Your task to perform on an android device: Go to settings Image 0: 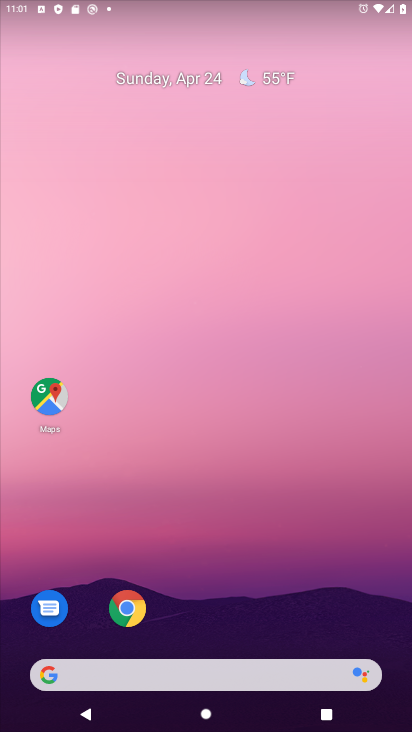
Step 0: drag from (364, 613) to (275, 47)
Your task to perform on an android device: Go to settings Image 1: 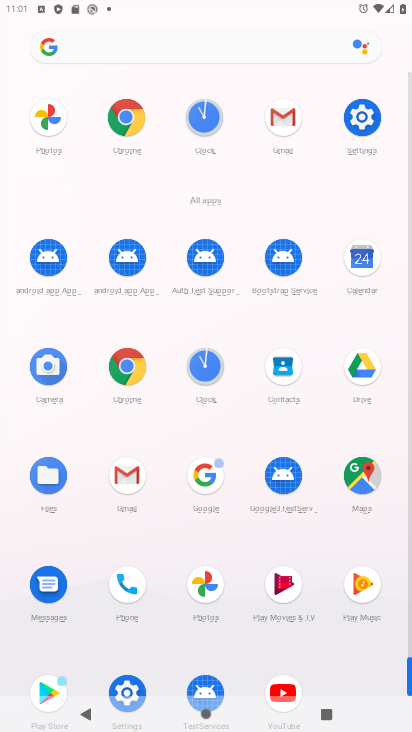
Step 1: click (409, 642)
Your task to perform on an android device: Go to settings Image 2: 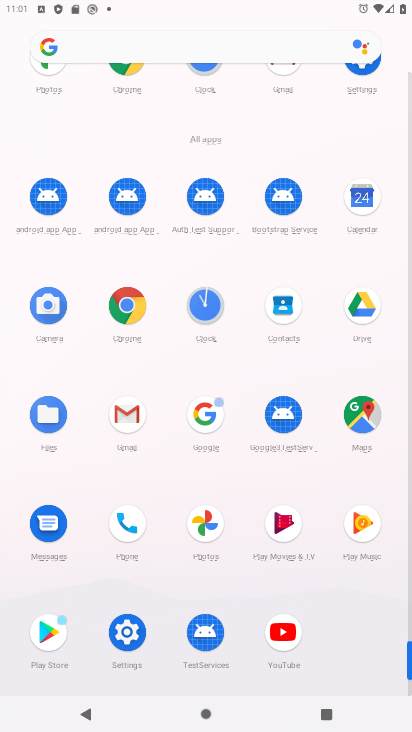
Step 2: click (128, 631)
Your task to perform on an android device: Go to settings Image 3: 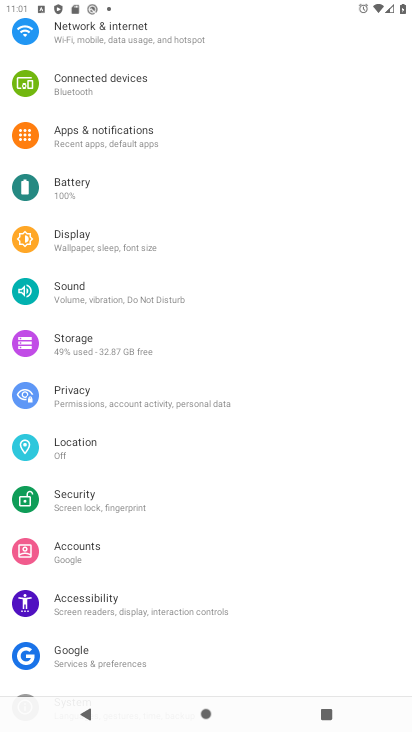
Step 3: task complete